Your task to perform on an android device: Open Amazon Image 0: 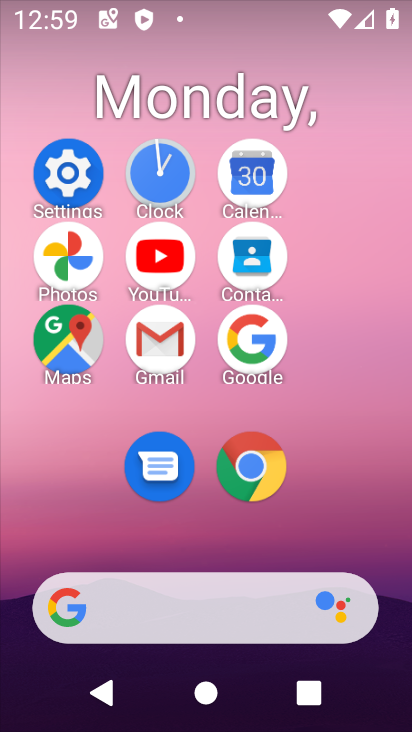
Step 0: click (254, 479)
Your task to perform on an android device: Open Amazon Image 1: 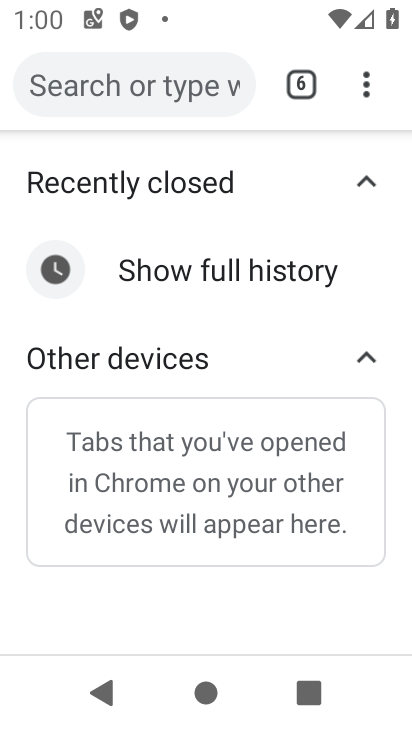
Step 1: click (301, 72)
Your task to perform on an android device: Open Amazon Image 2: 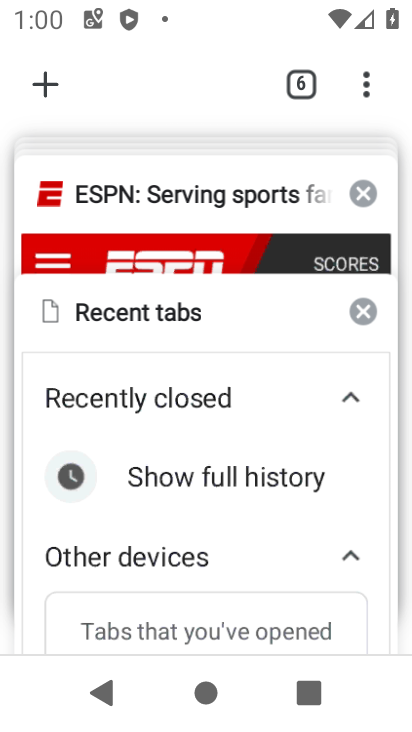
Step 2: drag from (175, 218) to (225, 535)
Your task to perform on an android device: Open Amazon Image 3: 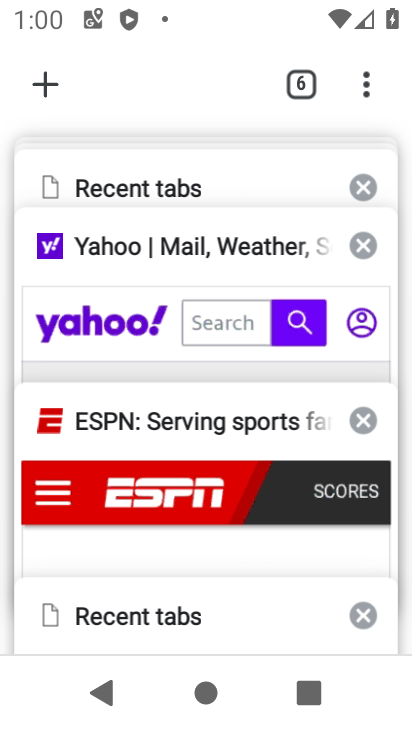
Step 3: drag from (174, 197) to (177, 567)
Your task to perform on an android device: Open Amazon Image 4: 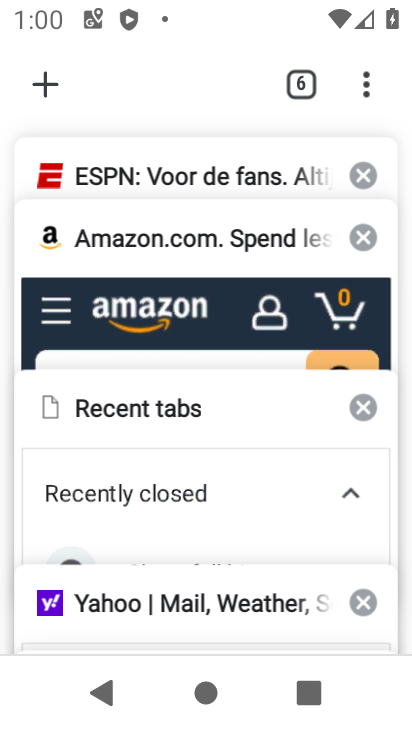
Step 4: click (174, 275)
Your task to perform on an android device: Open Amazon Image 5: 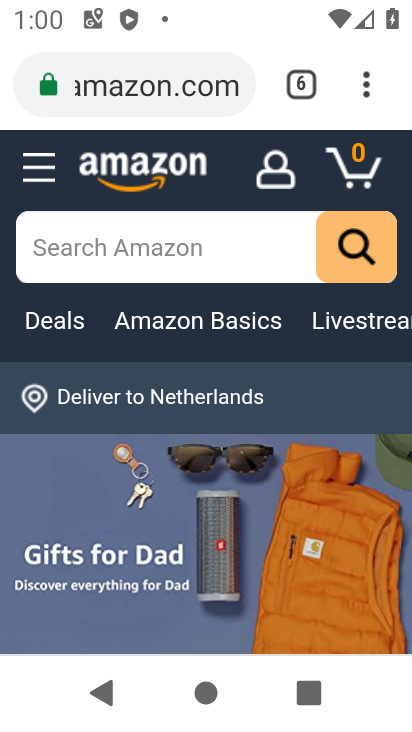
Step 5: task complete